Your task to perform on an android device: turn off sleep mode Image 0: 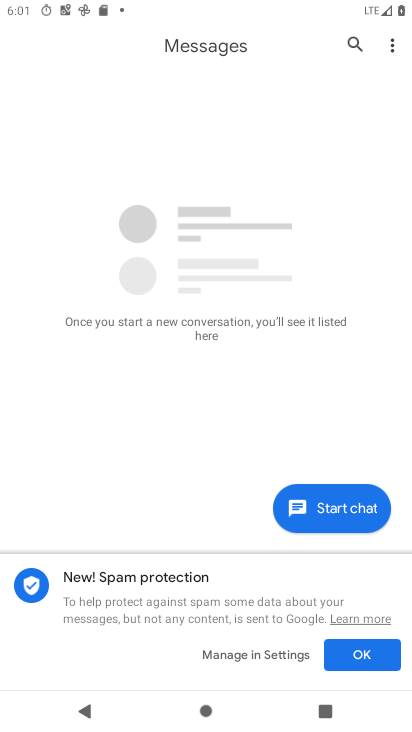
Step 0: press home button
Your task to perform on an android device: turn off sleep mode Image 1: 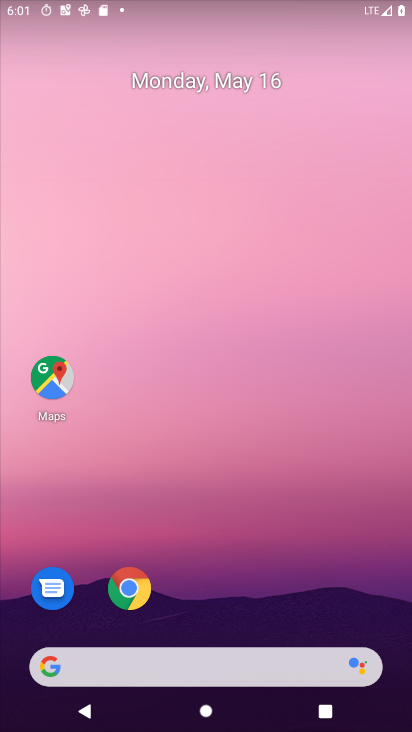
Step 1: drag from (245, 444) to (162, 17)
Your task to perform on an android device: turn off sleep mode Image 2: 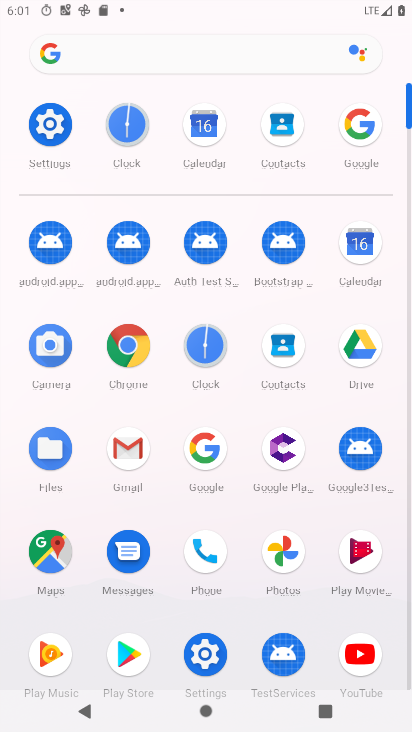
Step 2: click (63, 124)
Your task to perform on an android device: turn off sleep mode Image 3: 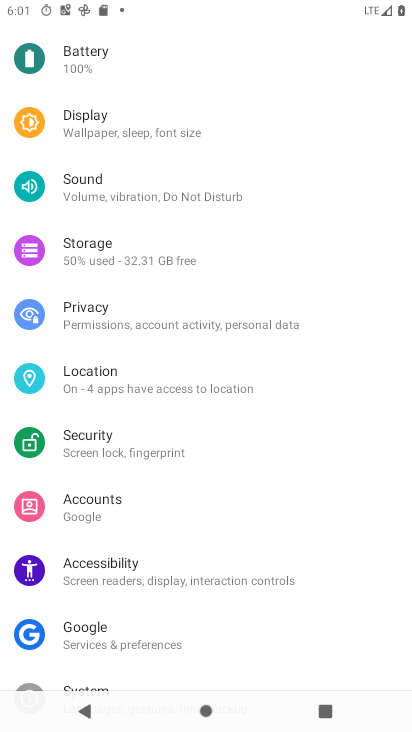
Step 3: click (173, 116)
Your task to perform on an android device: turn off sleep mode Image 4: 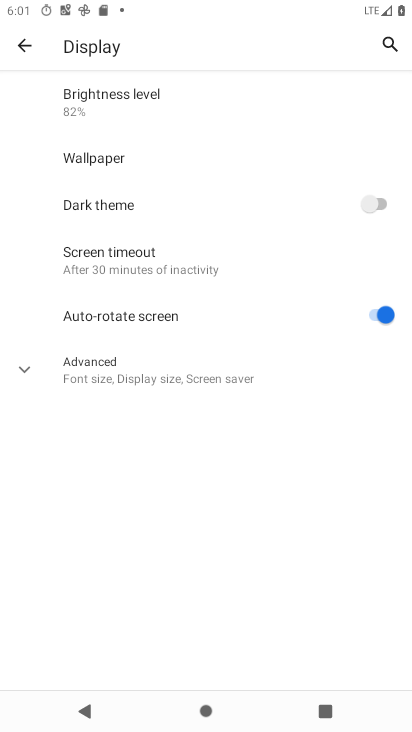
Step 4: drag from (163, 137) to (172, 503)
Your task to perform on an android device: turn off sleep mode Image 5: 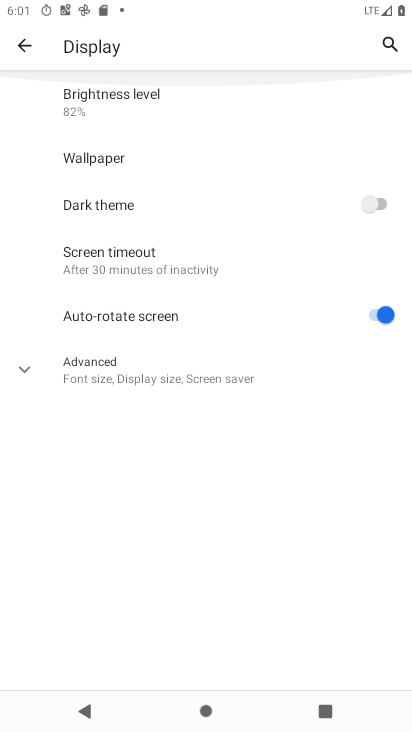
Step 5: drag from (198, 492) to (231, 108)
Your task to perform on an android device: turn off sleep mode Image 6: 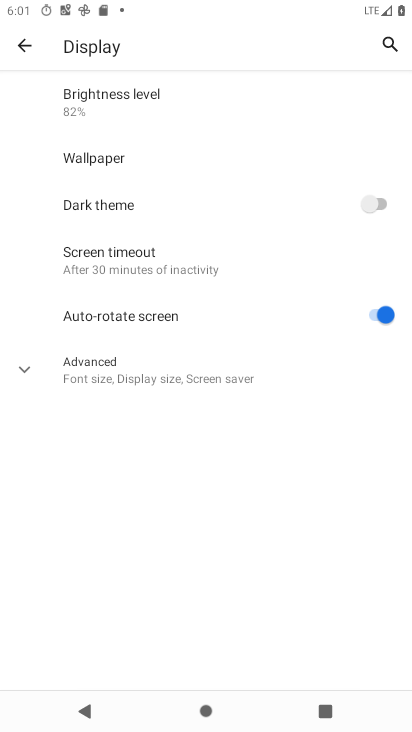
Step 6: click (207, 356)
Your task to perform on an android device: turn off sleep mode Image 7: 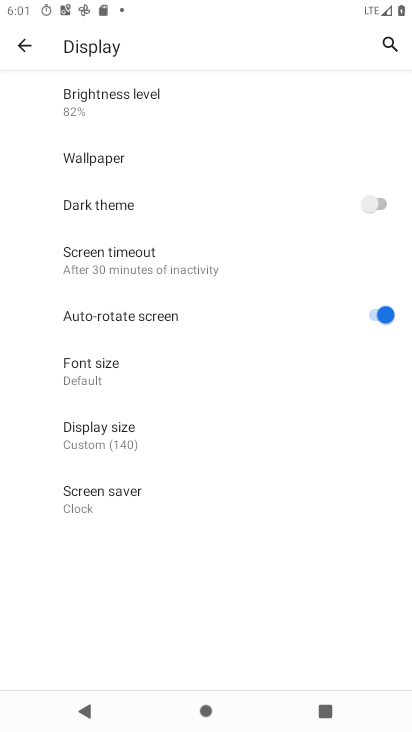
Step 7: task complete